Your task to perform on an android device: install app "McDonald's" Image 0: 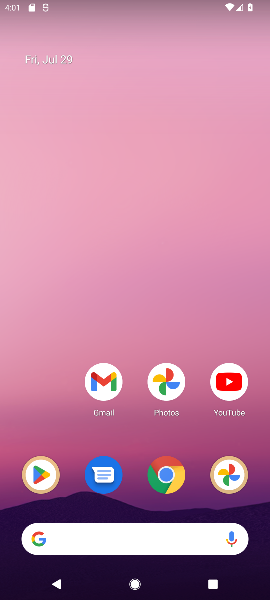
Step 0: click (38, 474)
Your task to perform on an android device: install app "McDonald's" Image 1: 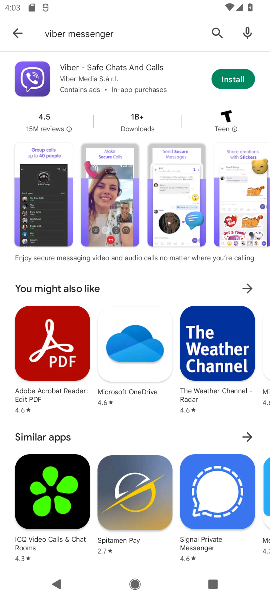
Step 1: click (234, 73)
Your task to perform on an android device: install app "McDonald's" Image 2: 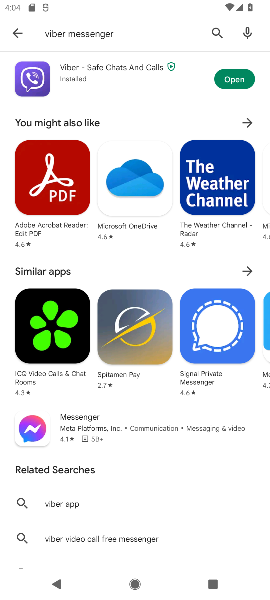
Step 2: task complete